Your task to perform on an android device: Go to Amazon Image 0: 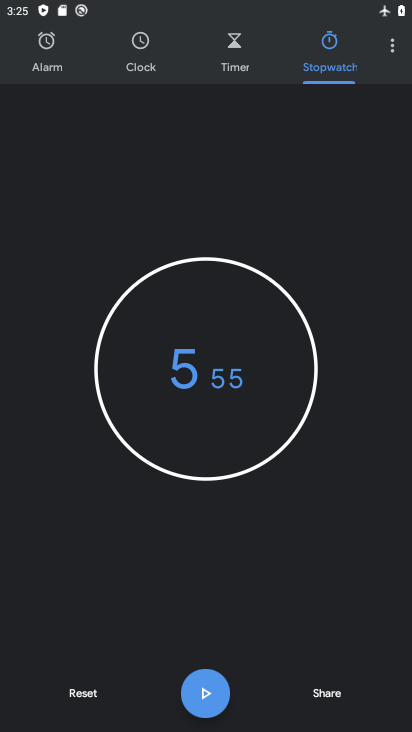
Step 0: press back button
Your task to perform on an android device: Go to Amazon Image 1: 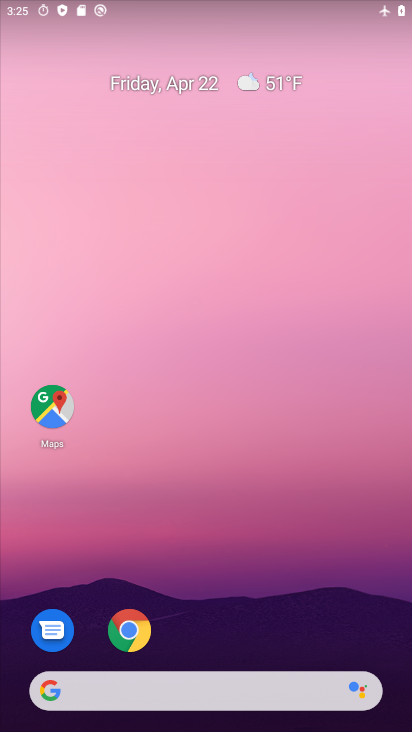
Step 1: drag from (222, 557) to (209, 13)
Your task to perform on an android device: Go to Amazon Image 2: 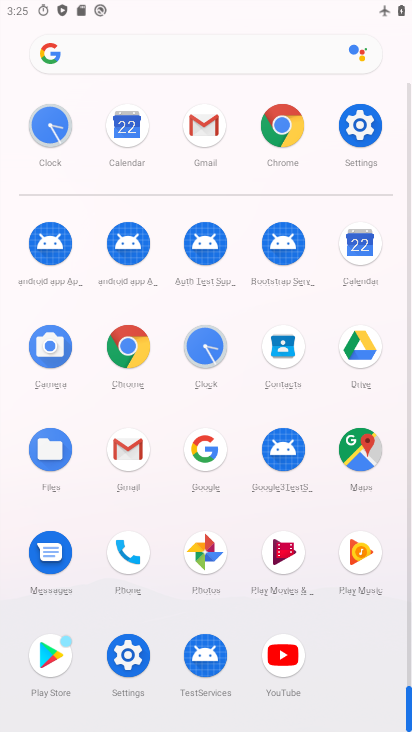
Step 2: click (282, 124)
Your task to perform on an android device: Go to Amazon Image 3: 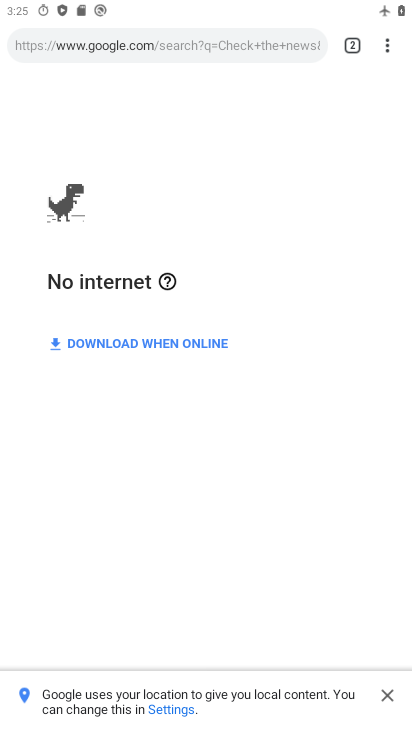
Step 3: click (189, 43)
Your task to perform on an android device: Go to Amazon Image 4: 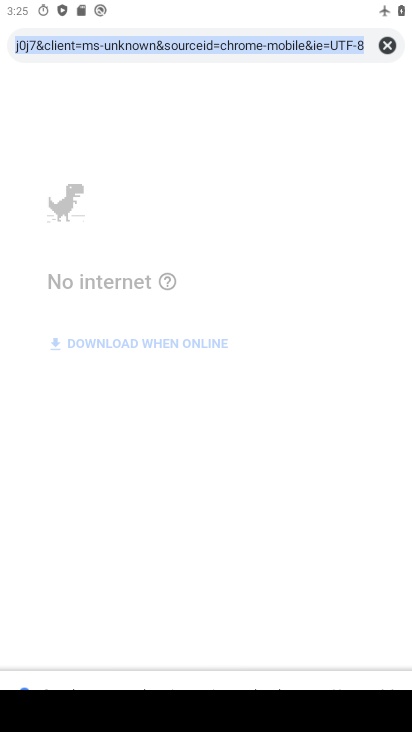
Step 4: click (382, 44)
Your task to perform on an android device: Go to Amazon Image 5: 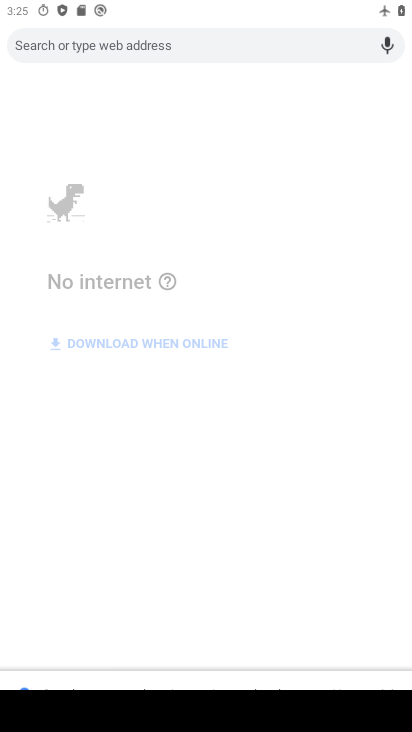
Step 5: click (139, 35)
Your task to perform on an android device: Go to Amazon Image 6: 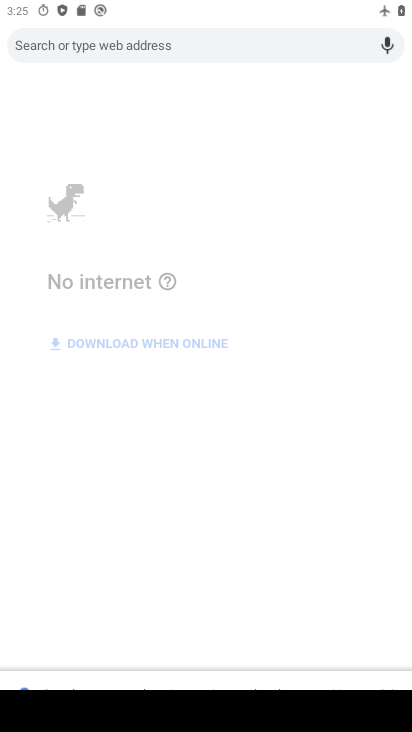
Step 6: type "Amazon"
Your task to perform on an android device: Go to Amazon Image 7: 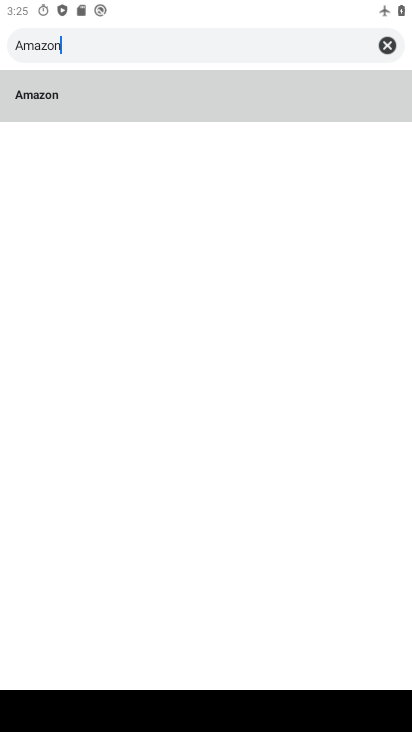
Step 7: type ""
Your task to perform on an android device: Go to Amazon Image 8: 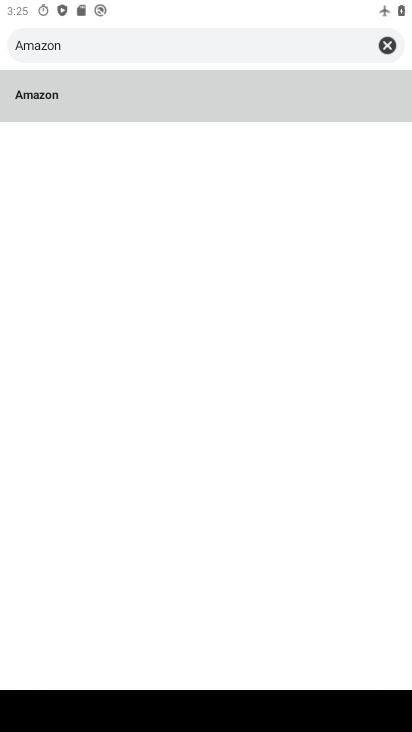
Step 8: click (113, 91)
Your task to perform on an android device: Go to Amazon Image 9: 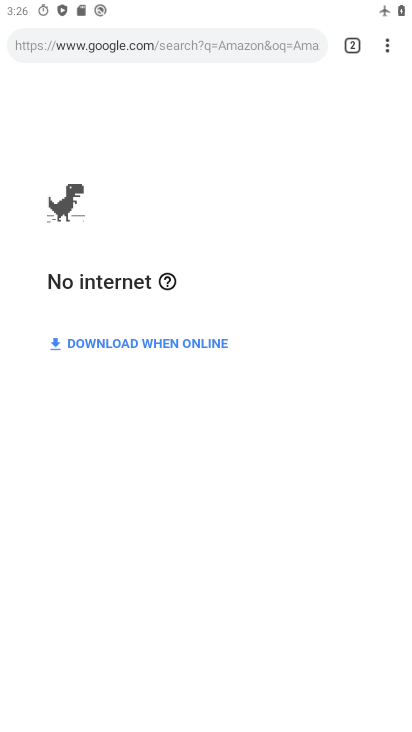
Step 9: task complete